Your task to perform on an android device: What's the weather going to be this weekend? Image 0: 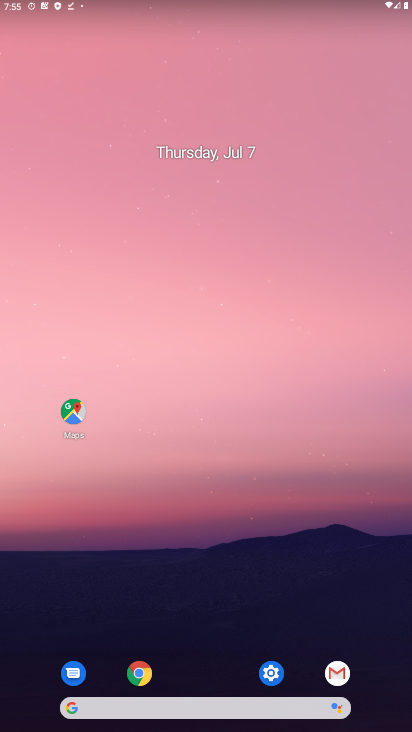
Step 0: drag from (234, 716) to (253, 228)
Your task to perform on an android device: What's the weather going to be this weekend? Image 1: 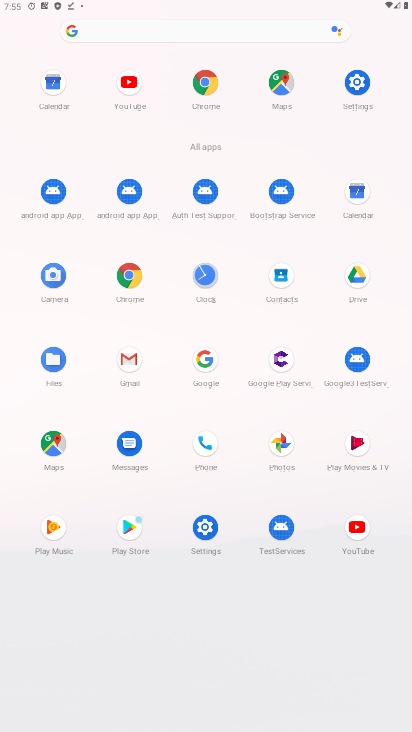
Step 1: click (131, 28)
Your task to perform on an android device: What's the weather going to be this weekend? Image 2: 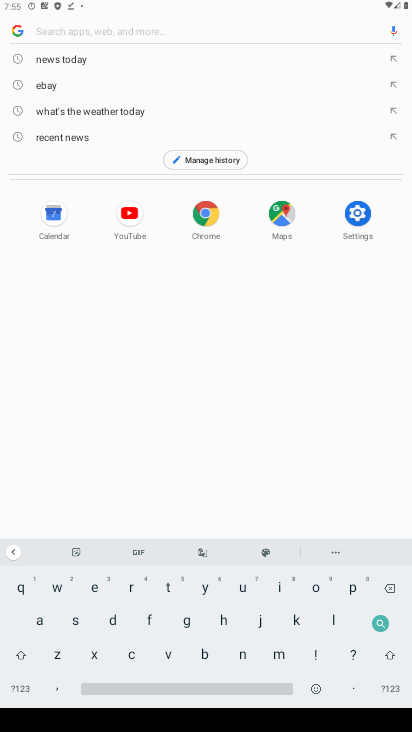
Step 2: click (50, 586)
Your task to perform on an android device: What's the weather going to be this weekend? Image 3: 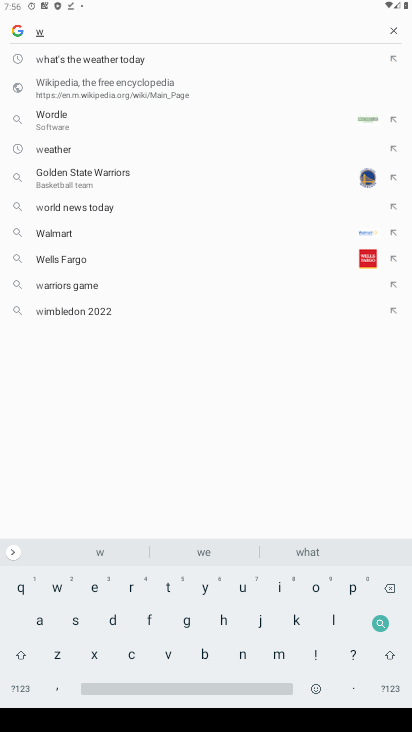
Step 3: click (71, 152)
Your task to perform on an android device: What's the weather going to be this weekend? Image 4: 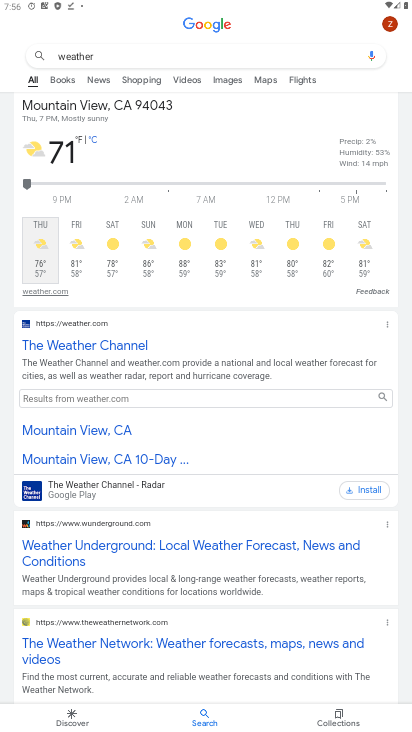
Step 4: task complete